Your task to perform on an android device: install app "Pandora - Music & Podcasts" Image 0: 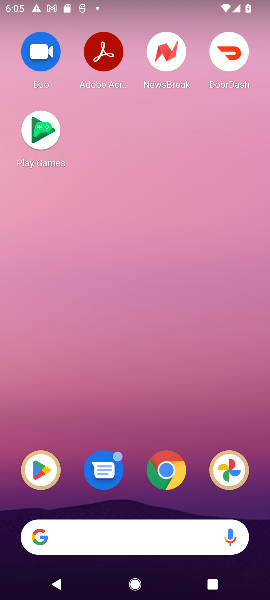
Step 0: drag from (206, 430) to (224, 4)
Your task to perform on an android device: install app "Pandora - Music & Podcasts" Image 1: 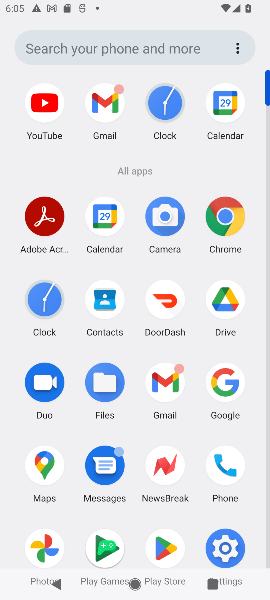
Step 1: click (165, 550)
Your task to perform on an android device: install app "Pandora - Music & Podcasts" Image 2: 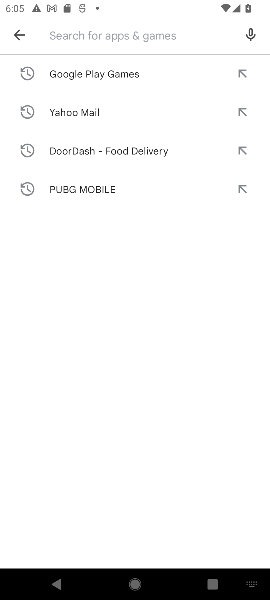
Step 2: type "Pandora - Music & Podcasts"
Your task to perform on an android device: install app "Pandora - Music & Podcasts" Image 3: 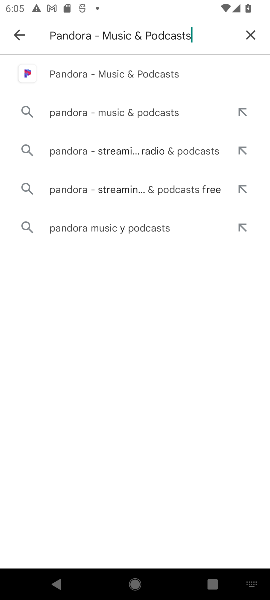
Step 3: click (77, 68)
Your task to perform on an android device: install app "Pandora - Music & Podcasts" Image 4: 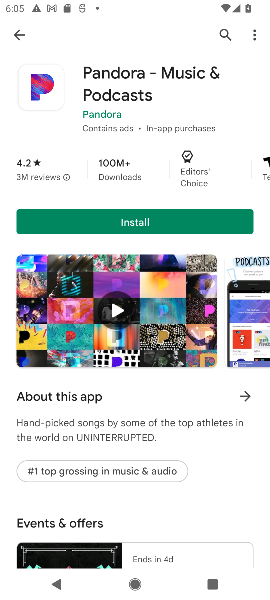
Step 4: click (122, 221)
Your task to perform on an android device: install app "Pandora - Music & Podcasts" Image 5: 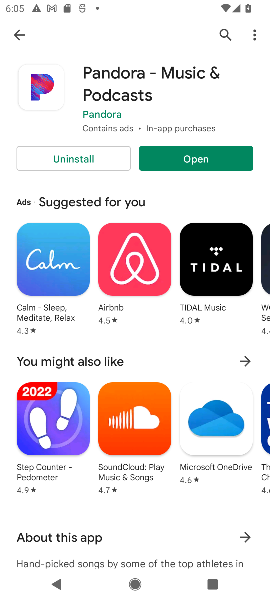
Step 5: task complete